Your task to perform on an android device: Find coffee shops on Maps Image 0: 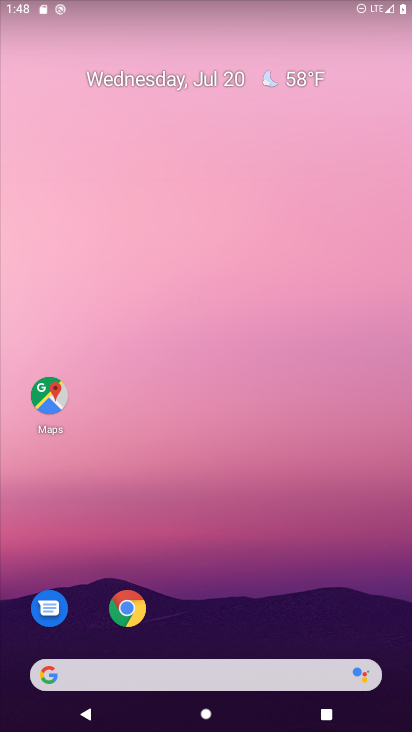
Step 0: drag from (239, 687) to (220, 166)
Your task to perform on an android device: Find coffee shops on Maps Image 1: 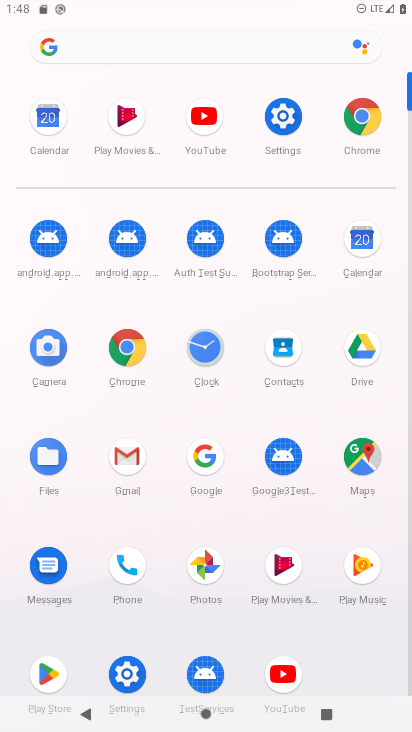
Step 1: click (353, 446)
Your task to perform on an android device: Find coffee shops on Maps Image 2: 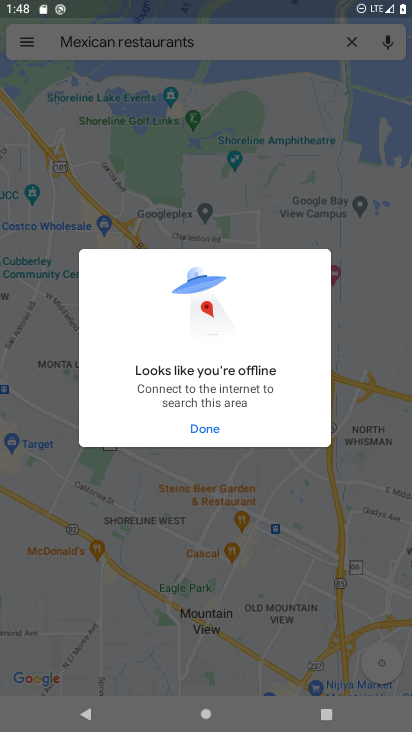
Step 2: click (203, 428)
Your task to perform on an android device: Find coffee shops on Maps Image 3: 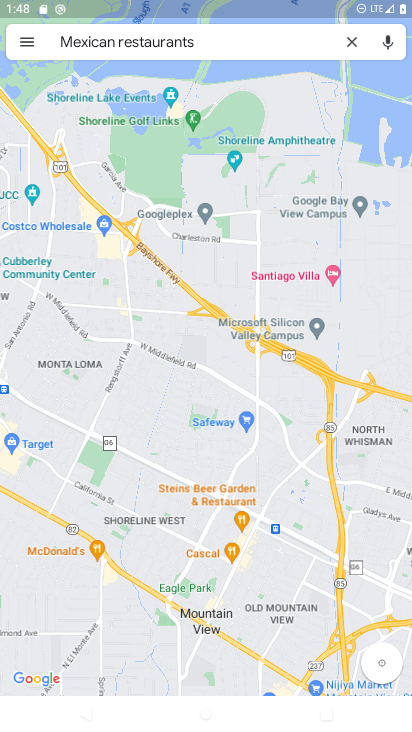
Step 3: click (350, 41)
Your task to perform on an android device: Find coffee shops on Maps Image 4: 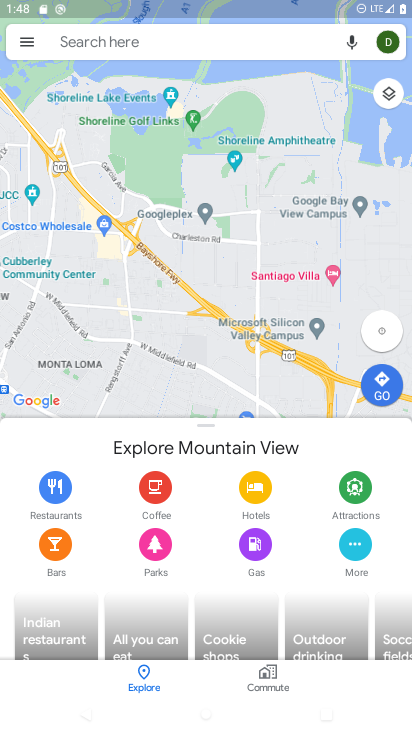
Step 4: click (191, 43)
Your task to perform on an android device: Find coffee shops on Maps Image 5: 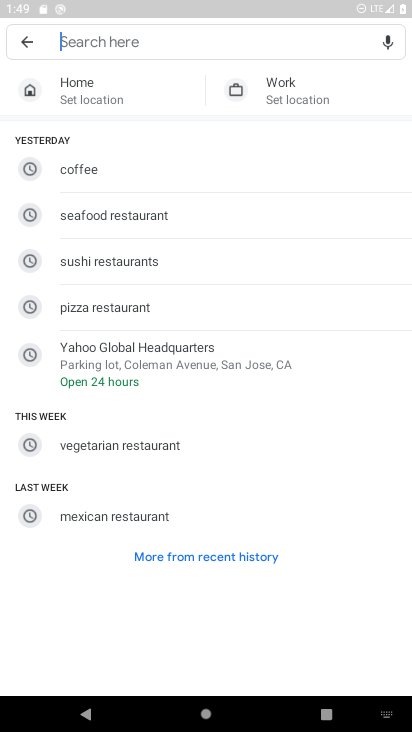
Step 5: type "coffee shops"
Your task to perform on an android device: Find coffee shops on Maps Image 6: 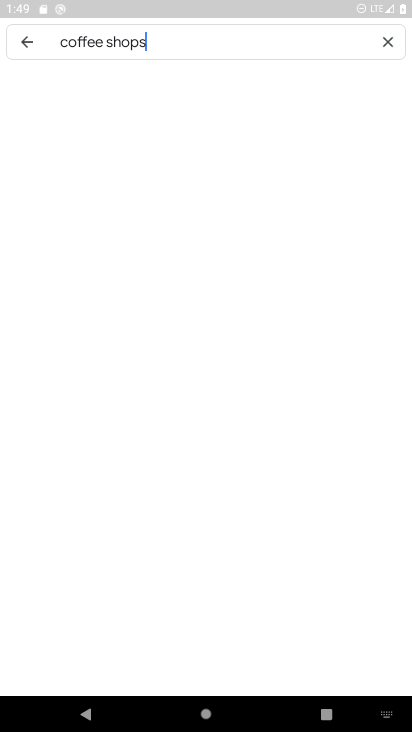
Step 6: type ""
Your task to perform on an android device: Find coffee shops on Maps Image 7: 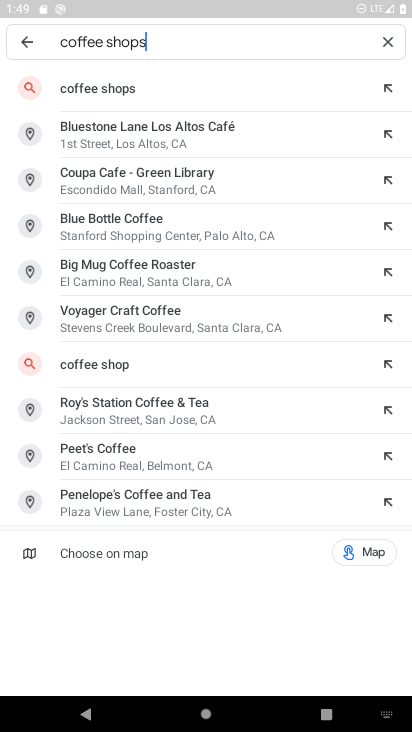
Step 7: click (111, 91)
Your task to perform on an android device: Find coffee shops on Maps Image 8: 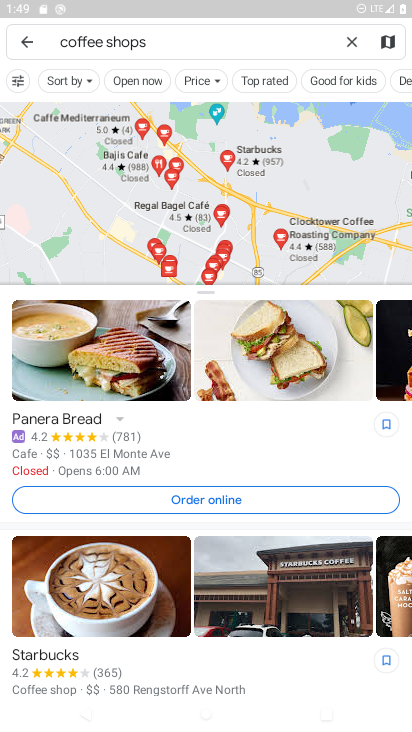
Step 8: task complete